Your task to perform on an android device: toggle translation in the chrome app Image 0: 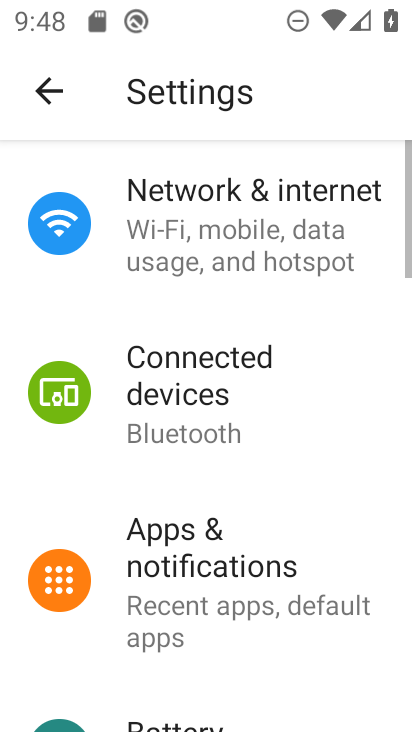
Step 0: press home button
Your task to perform on an android device: toggle translation in the chrome app Image 1: 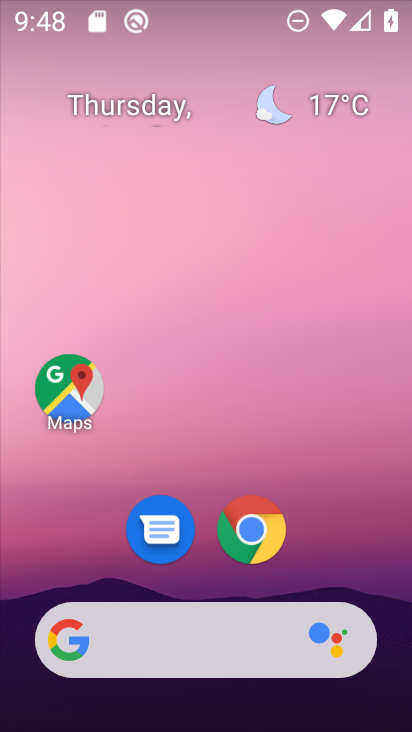
Step 1: click (254, 522)
Your task to perform on an android device: toggle translation in the chrome app Image 2: 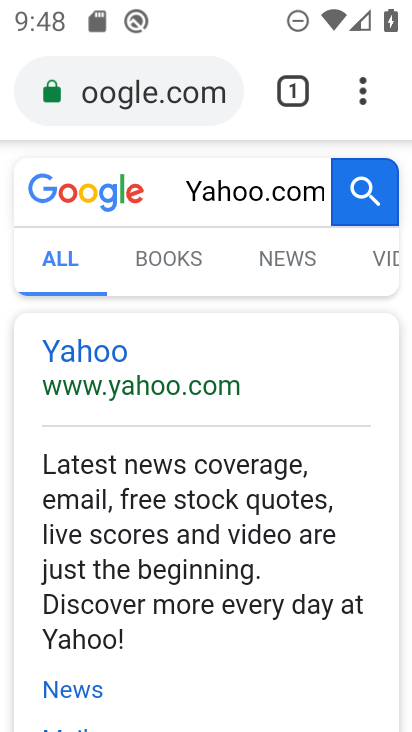
Step 2: click (366, 84)
Your task to perform on an android device: toggle translation in the chrome app Image 3: 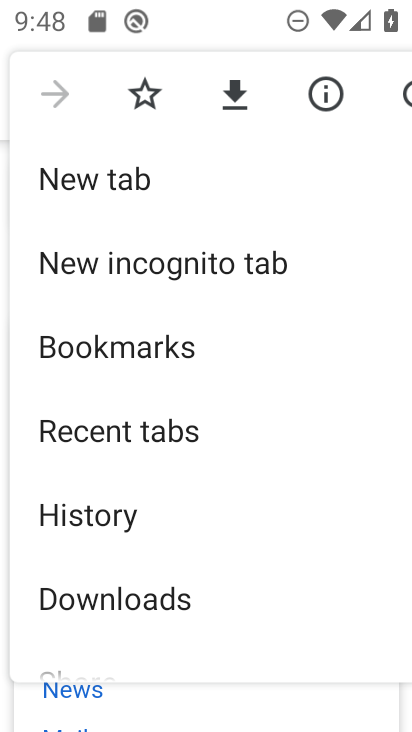
Step 3: drag from (242, 631) to (230, 316)
Your task to perform on an android device: toggle translation in the chrome app Image 4: 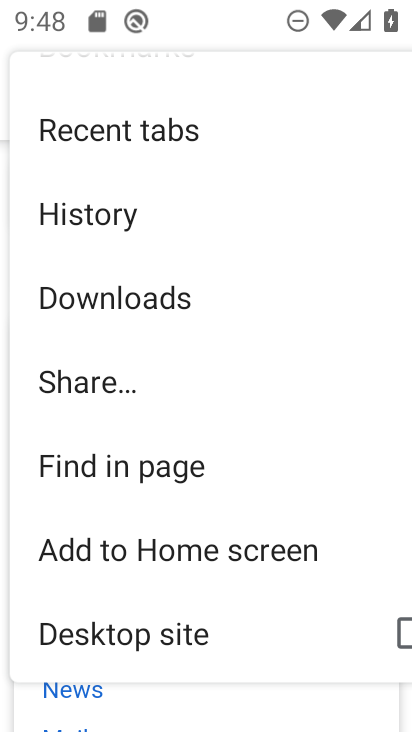
Step 4: drag from (276, 622) to (266, 267)
Your task to perform on an android device: toggle translation in the chrome app Image 5: 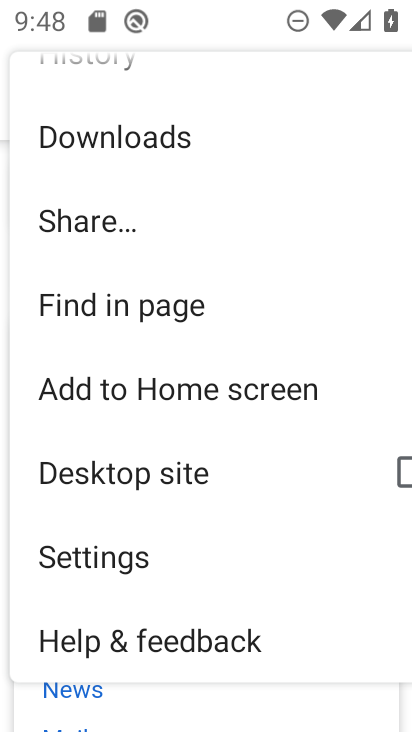
Step 5: click (110, 559)
Your task to perform on an android device: toggle translation in the chrome app Image 6: 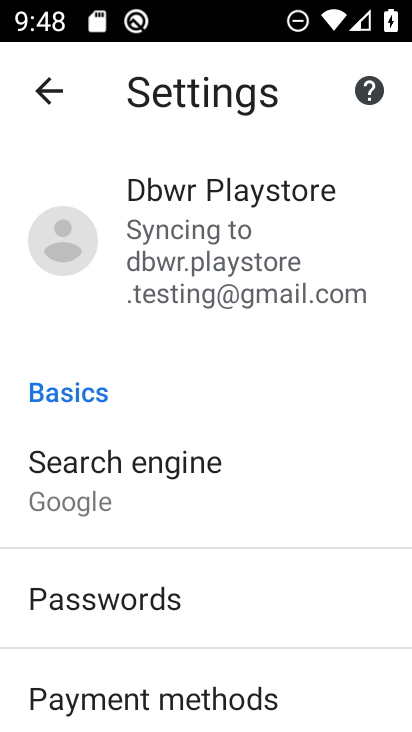
Step 6: drag from (317, 690) to (300, 230)
Your task to perform on an android device: toggle translation in the chrome app Image 7: 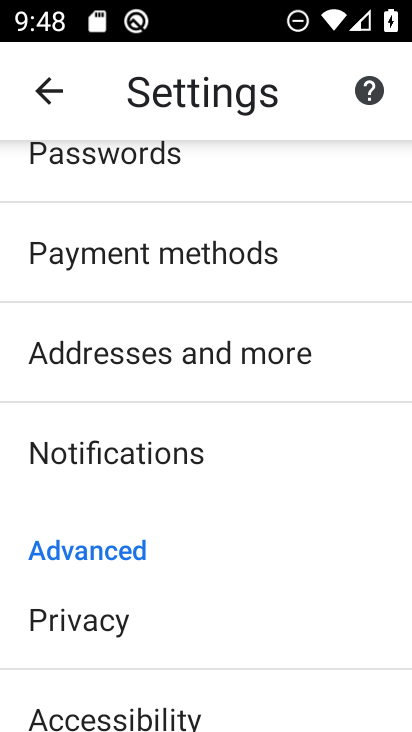
Step 7: drag from (300, 705) to (280, 396)
Your task to perform on an android device: toggle translation in the chrome app Image 8: 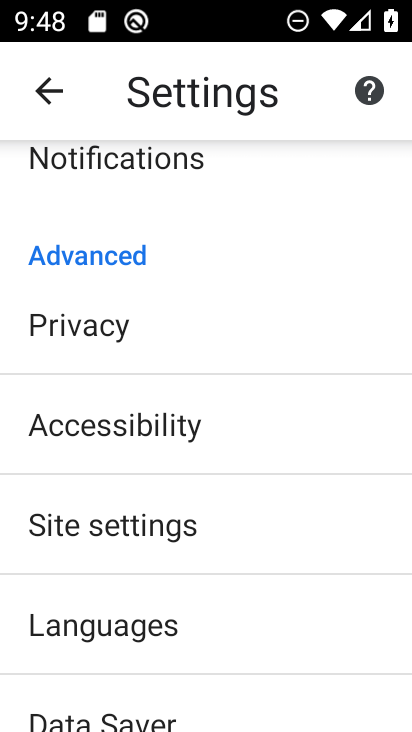
Step 8: click (165, 630)
Your task to perform on an android device: toggle translation in the chrome app Image 9: 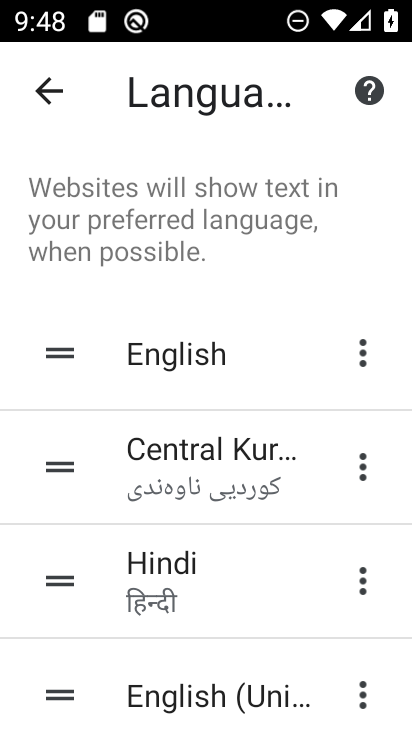
Step 9: drag from (259, 481) to (260, 394)
Your task to perform on an android device: toggle translation in the chrome app Image 10: 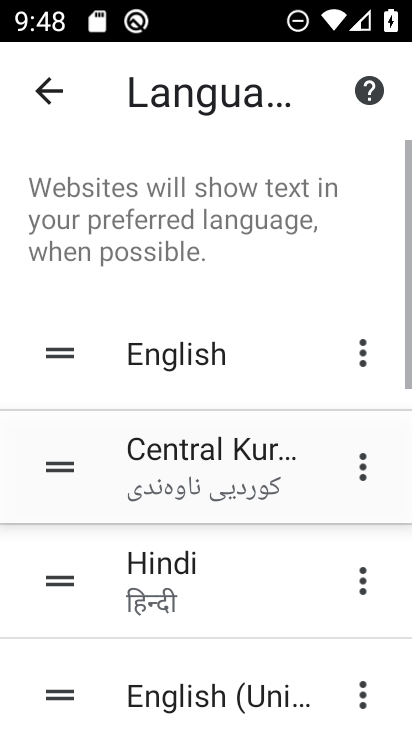
Step 10: click (305, 344)
Your task to perform on an android device: toggle translation in the chrome app Image 11: 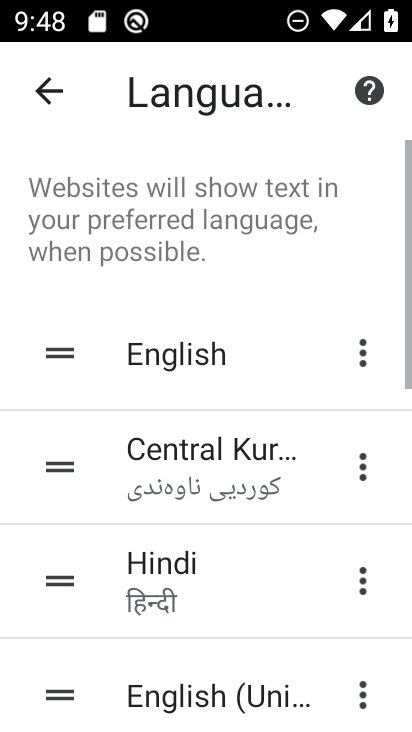
Step 11: click (317, 327)
Your task to perform on an android device: toggle translation in the chrome app Image 12: 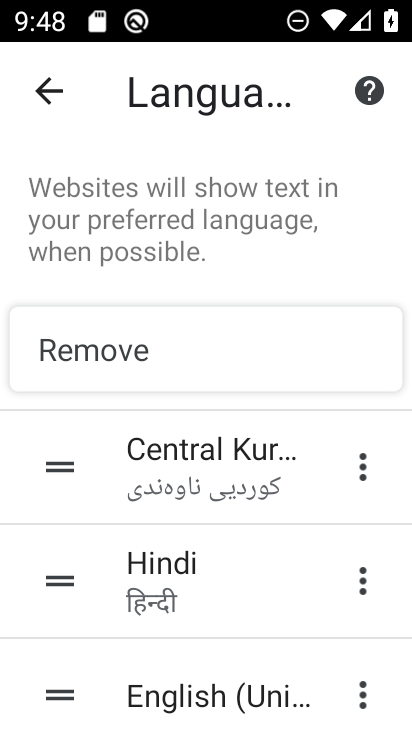
Step 12: drag from (319, 695) to (316, 378)
Your task to perform on an android device: toggle translation in the chrome app Image 13: 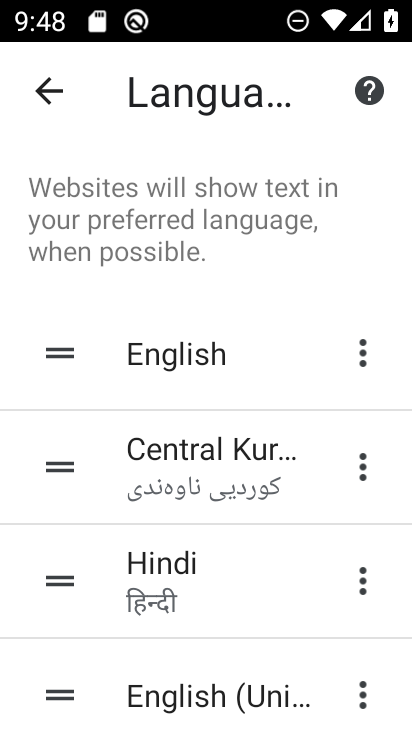
Step 13: drag from (308, 680) to (294, 397)
Your task to perform on an android device: toggle translation in the chrome app Image 14: 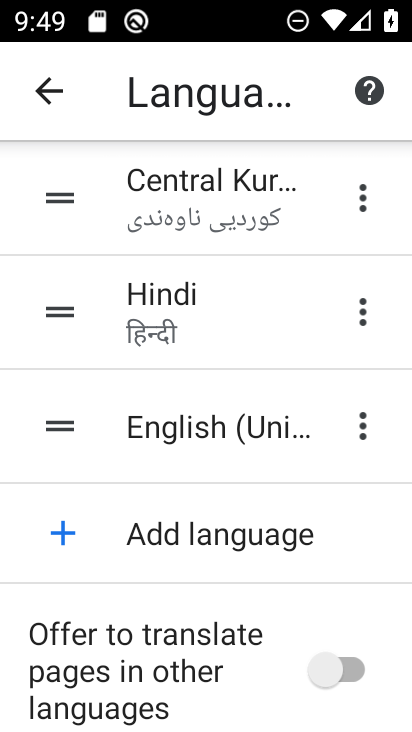
Step 14: click (334, 670)
Your task to perform on an android device: toggle translation in the chrome app Image 15: 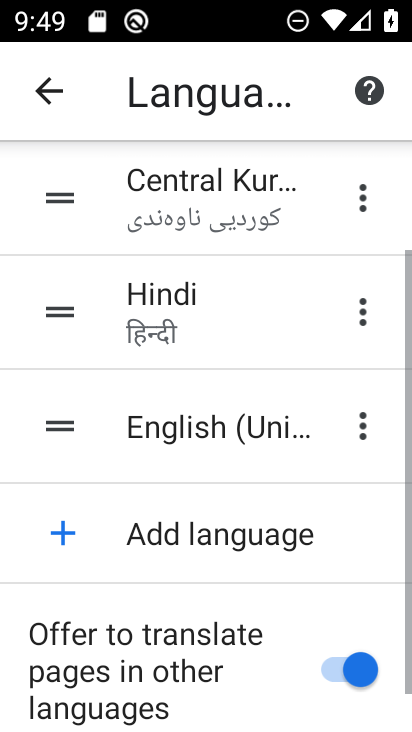
Step 15: task complete